Your task to perform on an android device: turn pop-ups off in chrome Image 0: 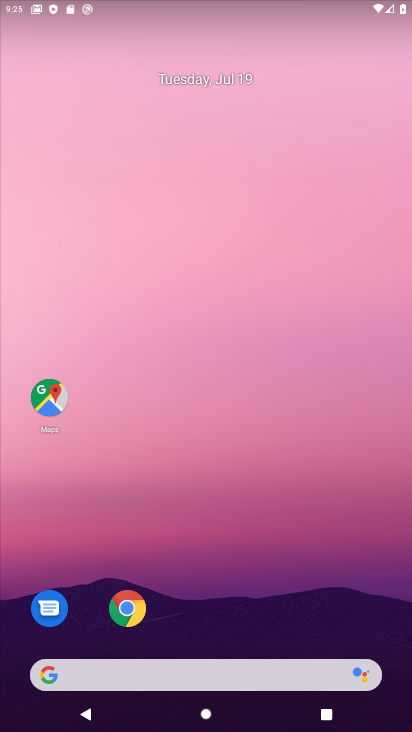
Step 0: drag from (349, 630) to (222, 189)
Your task to perform on an android device: turn pop-ups off in chrome Image 1: 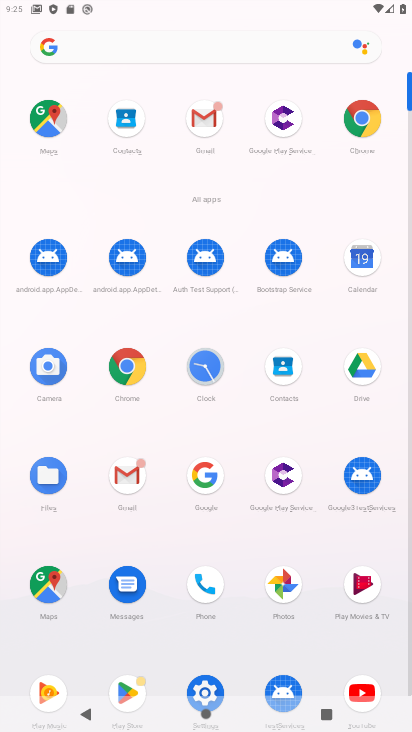
Step 1: click (358, 121)
Your task to perform on an android device: turn pop-ups off in chrome Image 2: 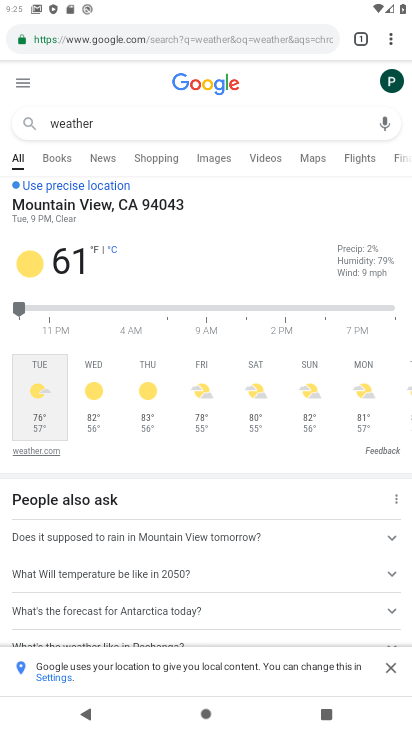
Step 2: drag from (389, 37) to (255, 433)
Your task to perform on an android device: turn pop-ups off in chrome Image 3: 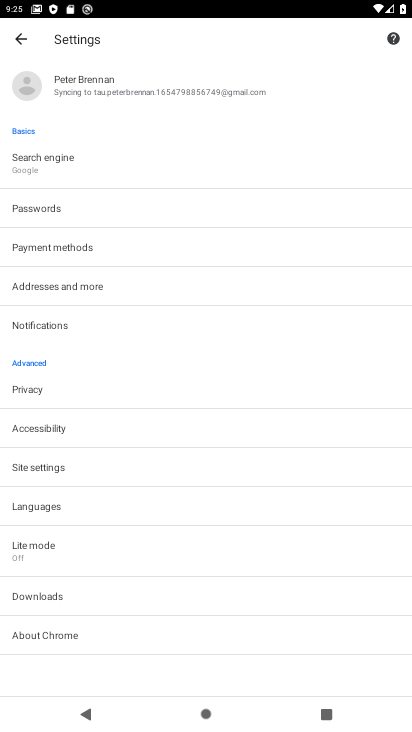
Step 3: click (52, 467)
Your task to perform on an android device: turn pop-ups off in chrome Image 4: 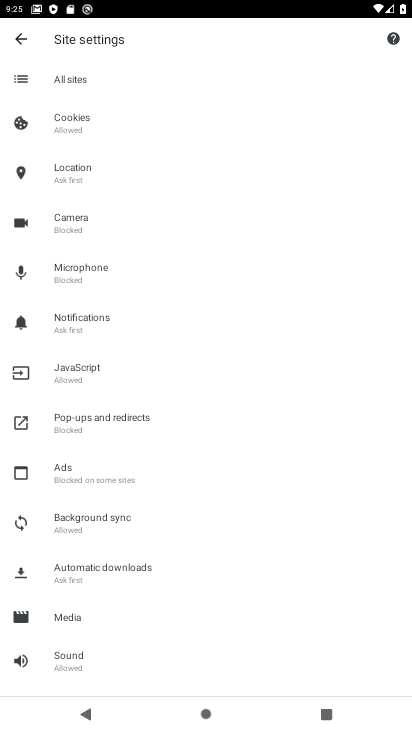
Step 4: click (91, 412)
Your task to perform on an android device: turn pop-ups off in chrome Image 5: 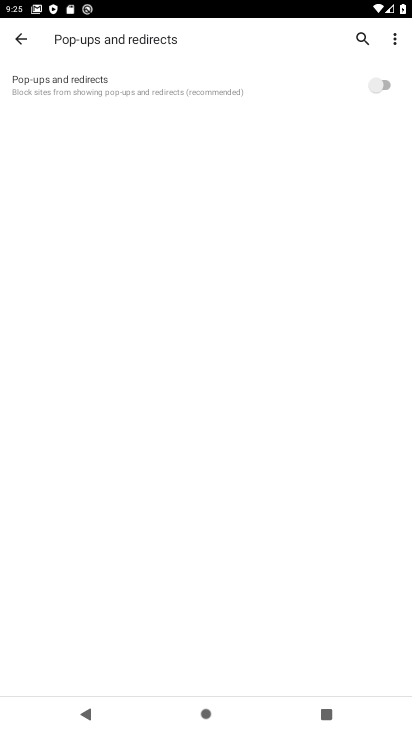
Step 5: task complete